Your task to perform on an android device: Search for flights from Zurich to Buenos aires Image 0: 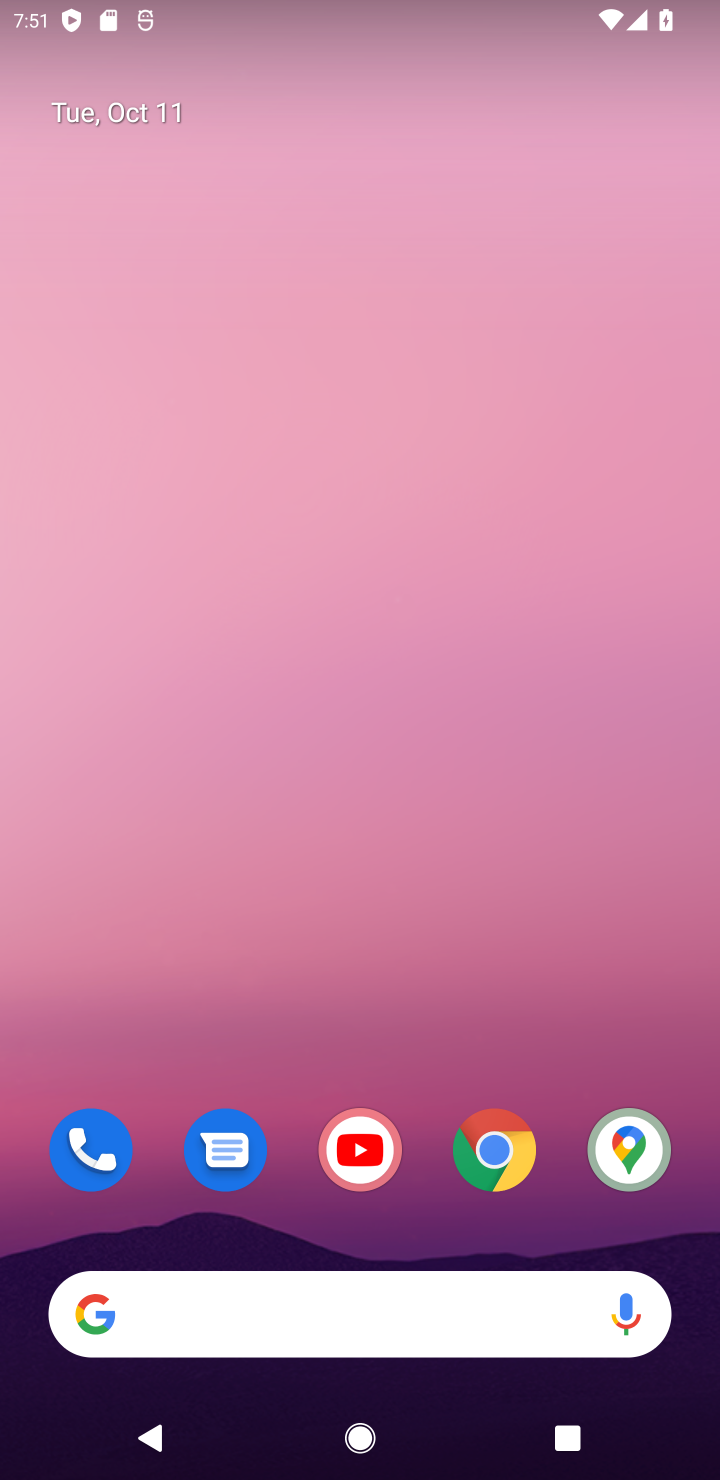
Step 0: type "flights  Zurich to Buenos aires"
Your task to perform on an android device: Search for flights from Zurich to Buenos aires Image 1: 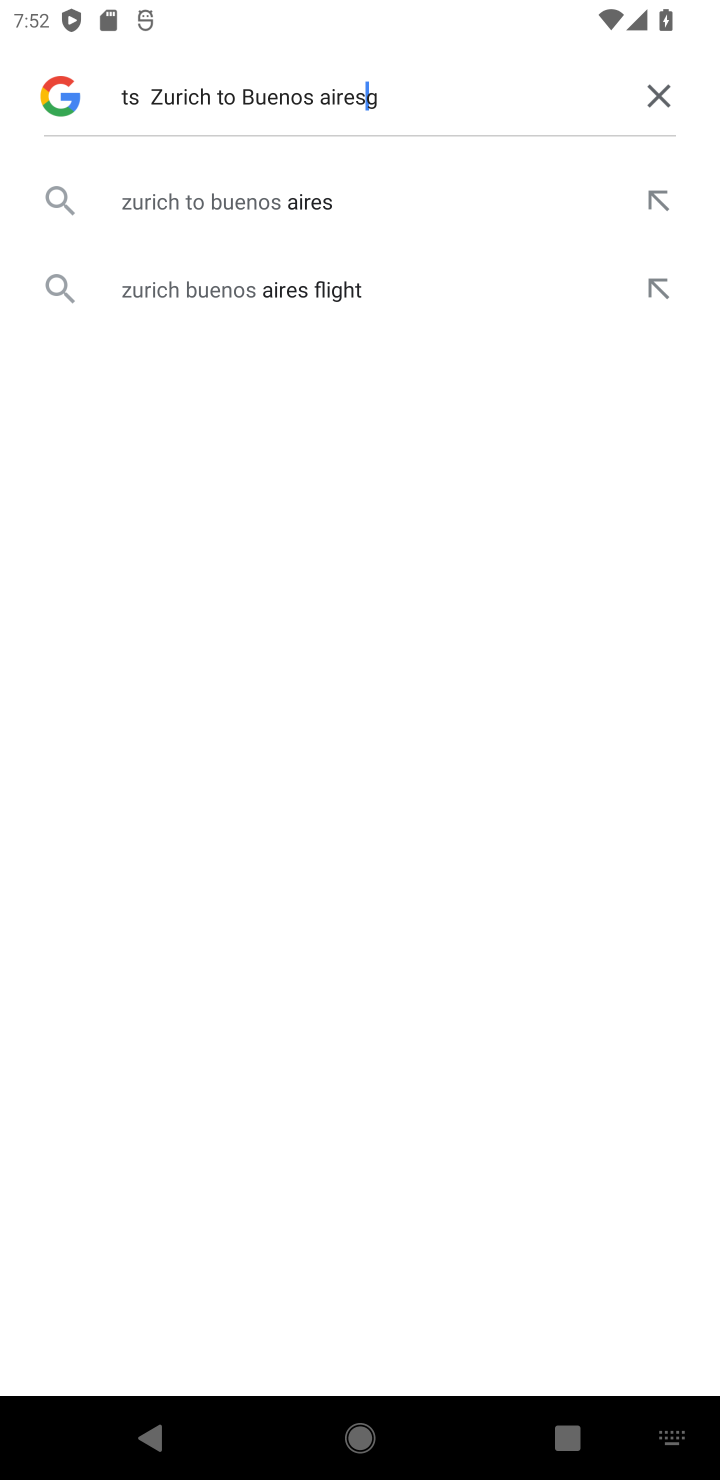
Step 1: click (491, 1147)
Your task to perform on an android device: Search for flights from Zurich to Buenos aires Image 2: 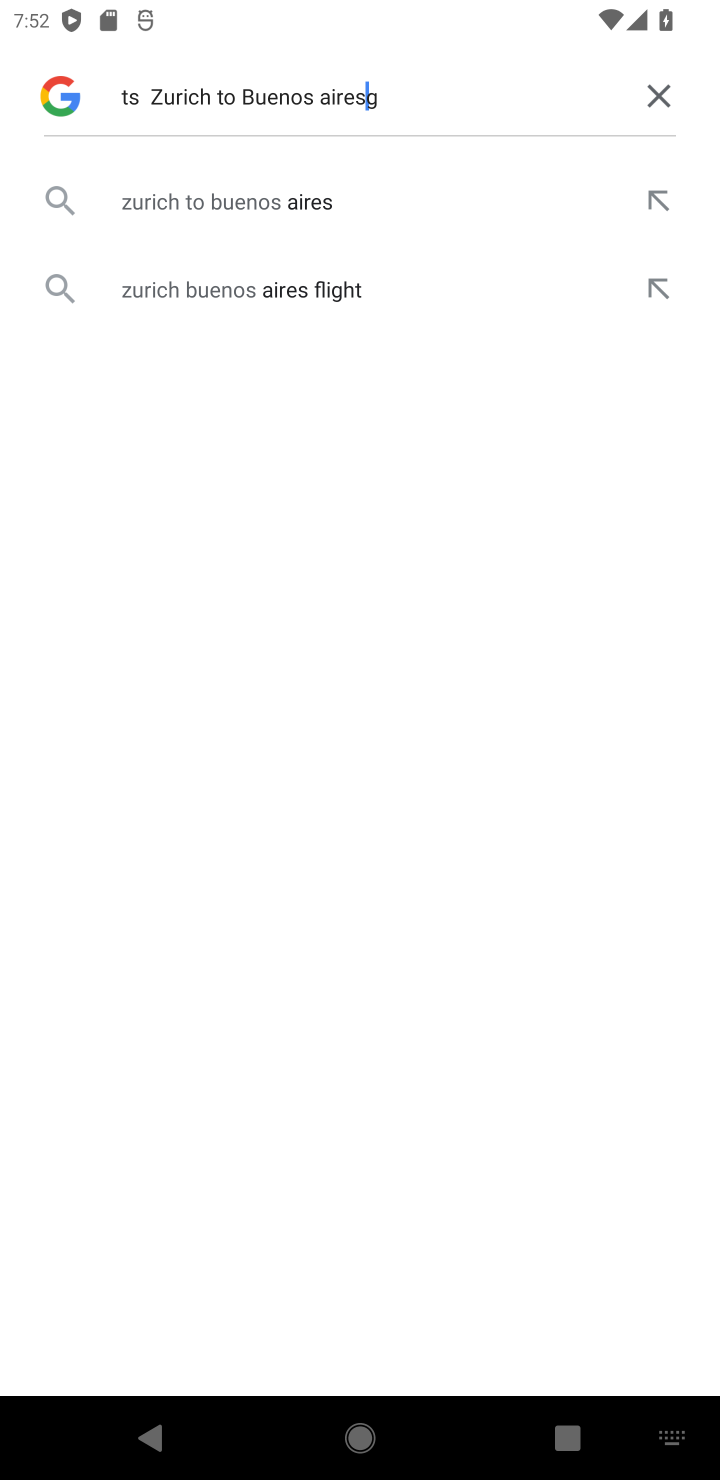
Step 2: click (668, 101)
Your task to perform on an android device: Search for flights from Zurich to Buenos aires Image 3: 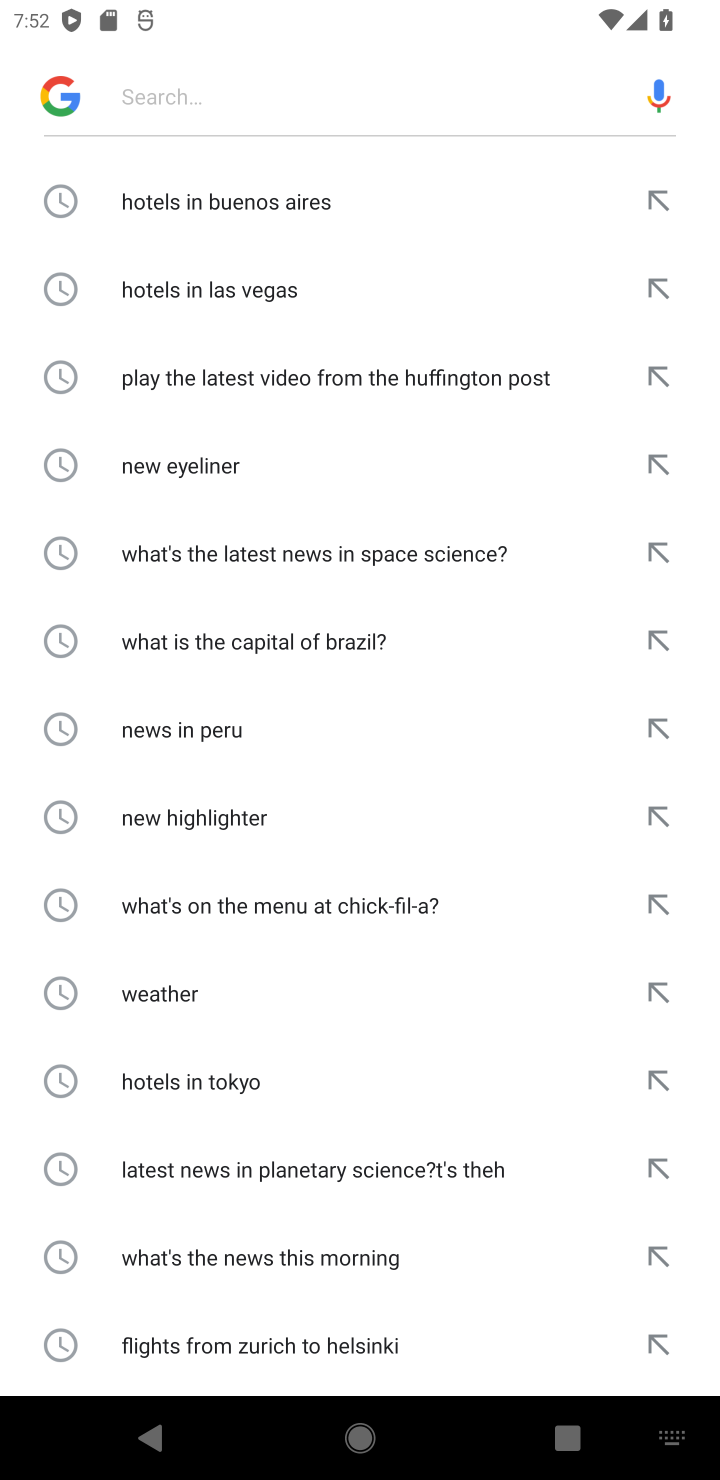
Step 3: type "Zurich to Buenos aires flights"
Your task to perform on an android device: Search for flights from Zurich to Buenos aires Image 4: 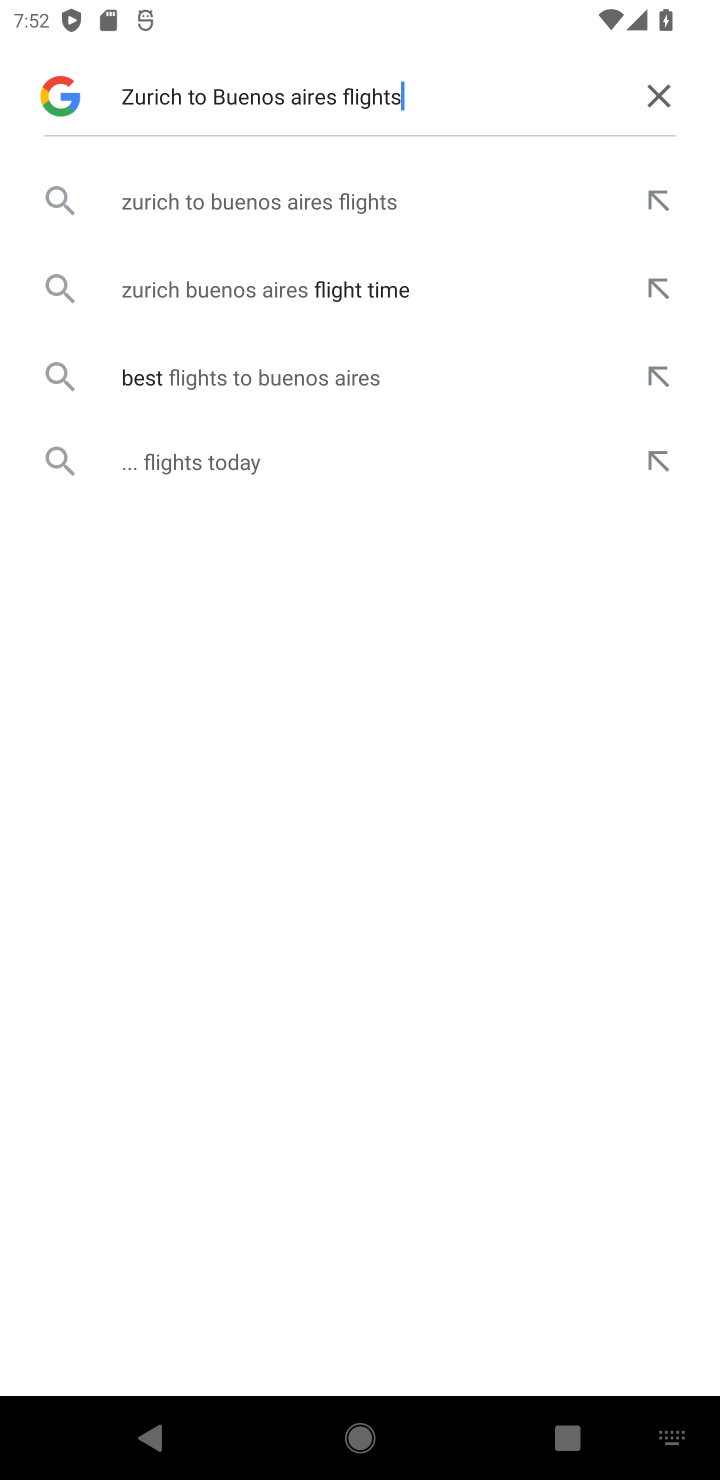
Step 4: click (221, 208)
Your task to perform on an android device: Search for flights from Zurich to Buenos aires Image 5: 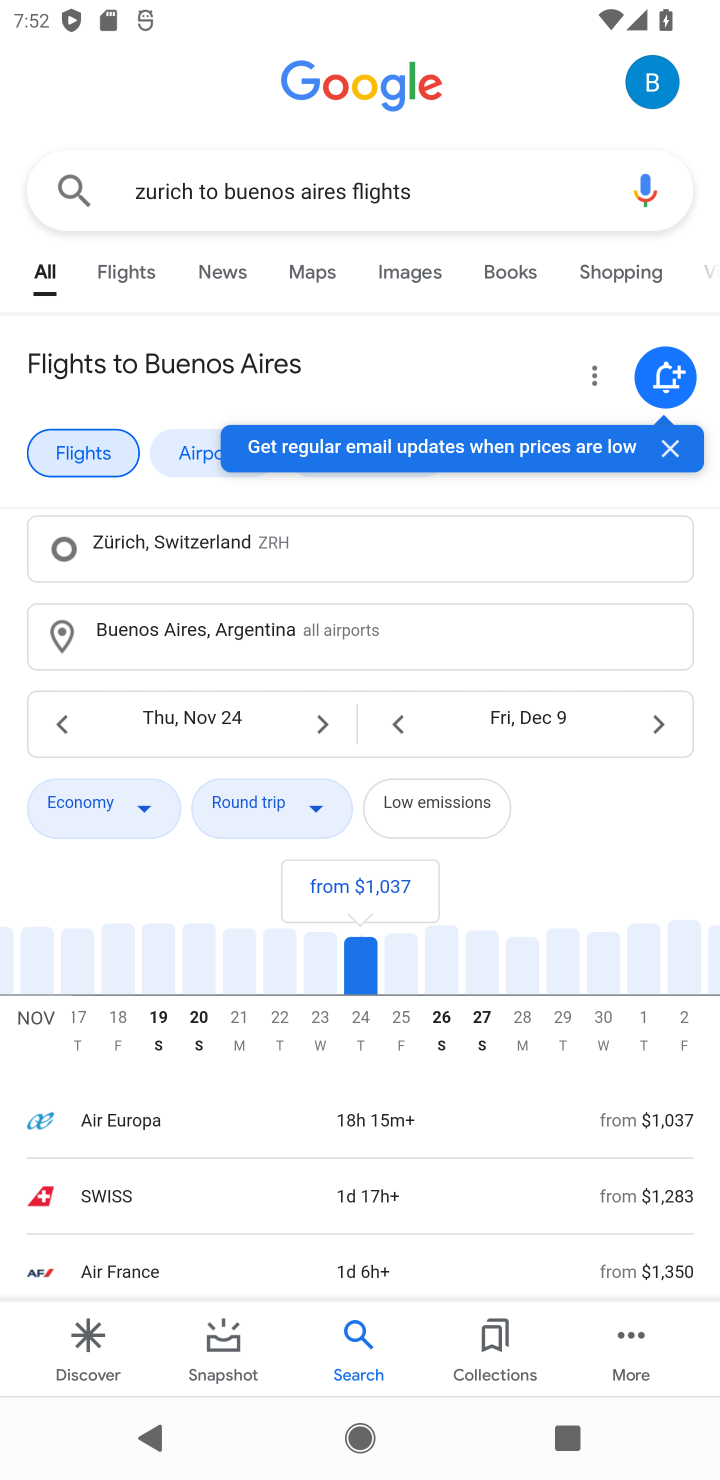
Step 5: click (122, 274)
Your task to perform on an android device: Search for flights from Zurich to Buenos aires Image 6: 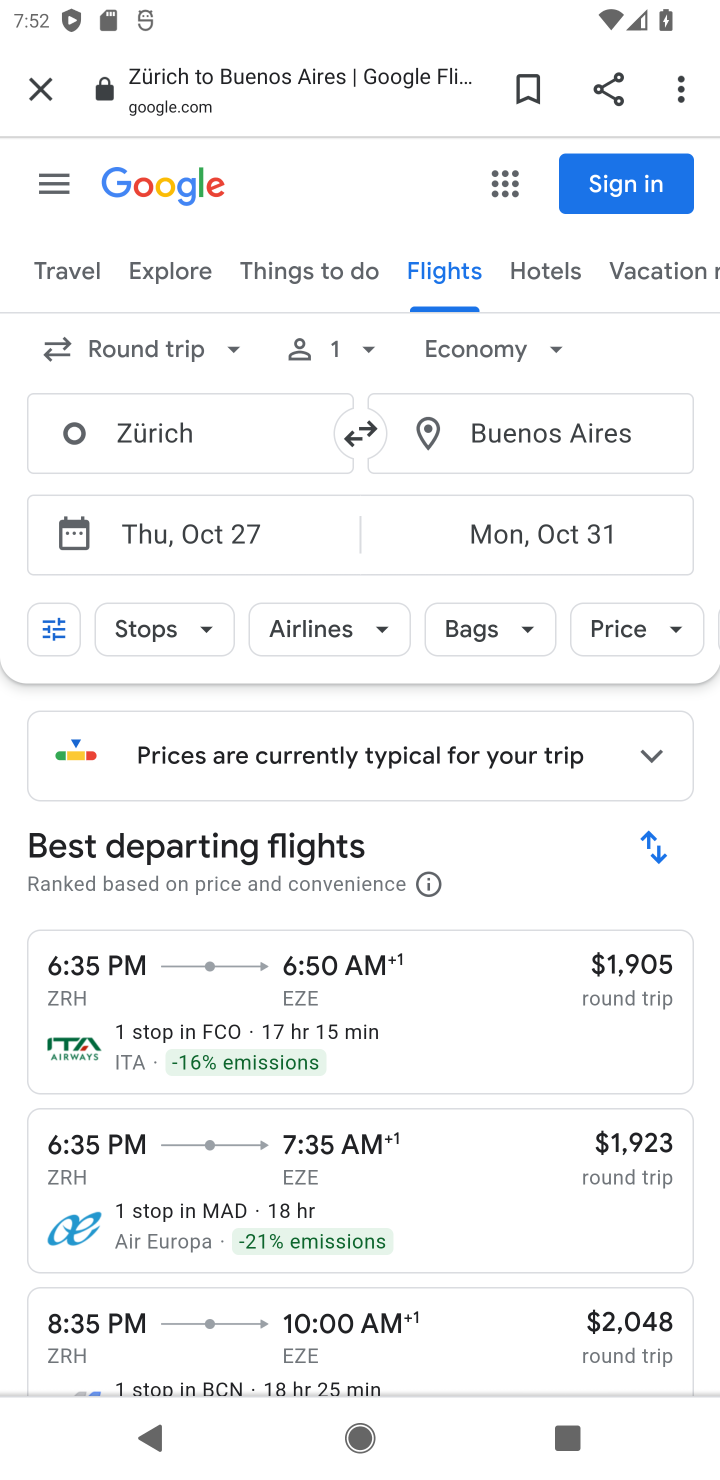
Step 6: task complete